Your task to perform on an android device: make emails show in primary in the gmail app Image 0: 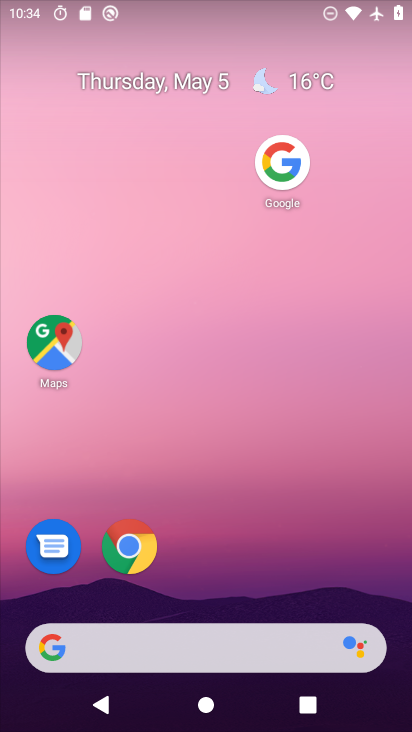
Step 0: drag from (198, 609) to (317, 203)
Your task to perform on an android device: make emails show in primary in the gmail app Image 1: 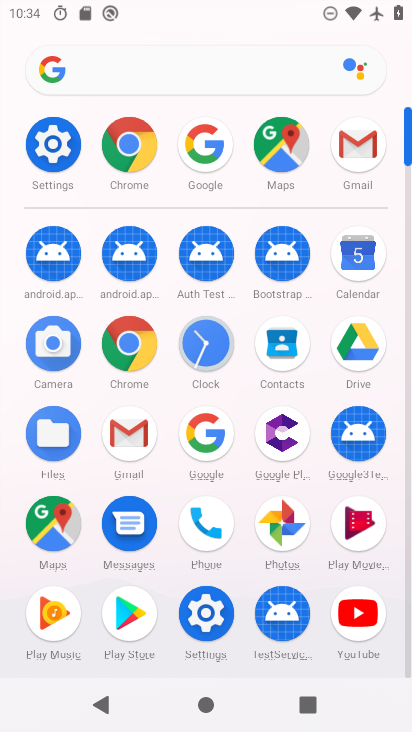
Step 1: click (360, 156)
Your task to perform on an android device: make emails show in primary in the gmail app Image 2: 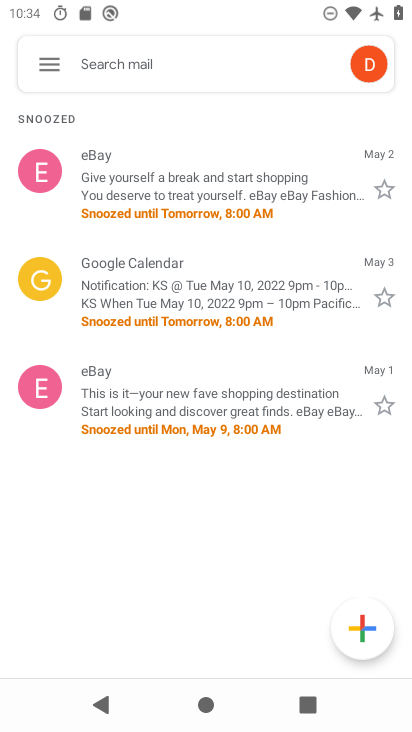
Step 2: click (51, 62)
Your task to perform on an android device: make emails show in primary in the gmail app Image 3: 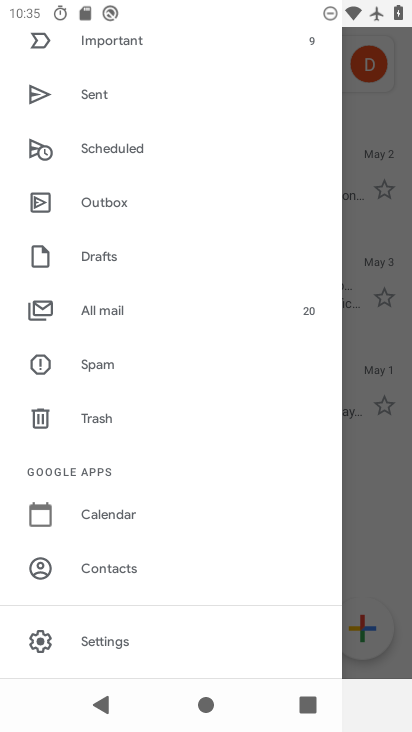
Step 3: click (139, 641)
Your task to perform on an android device: make emails show in primary in the gmail app Image 4: 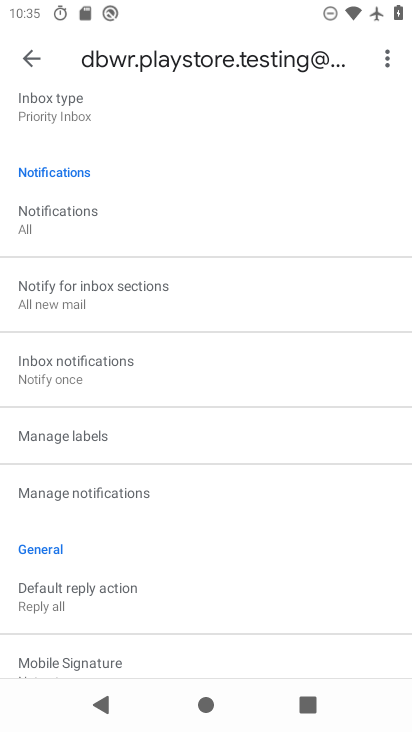
Step 4: task complete